Your task to perform on an android device: check battery use Image 0: 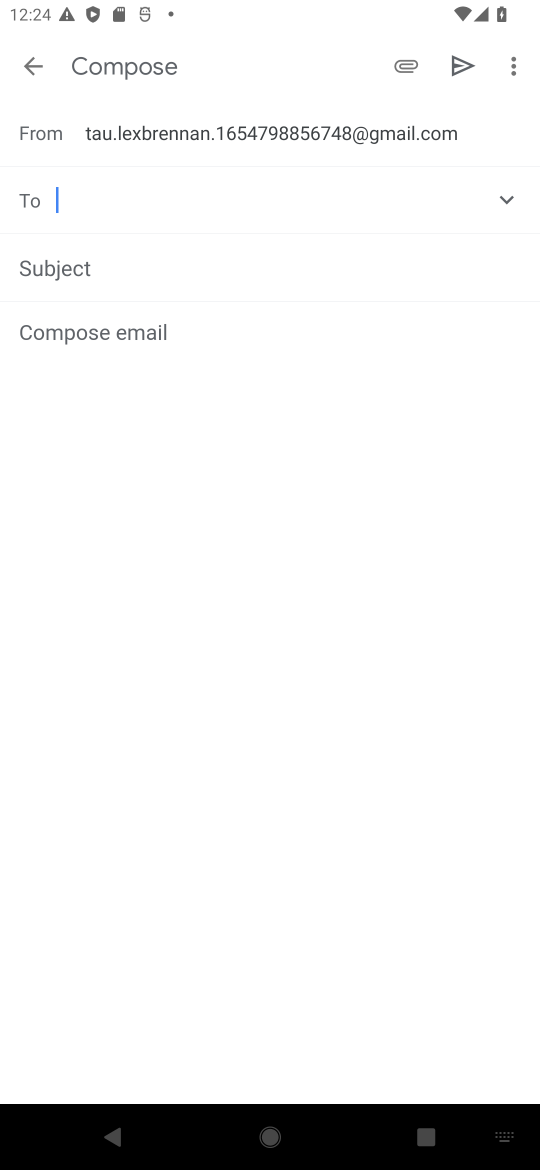
Step 0: press home button
Your task to perform on an android device: check battery use Image 1: 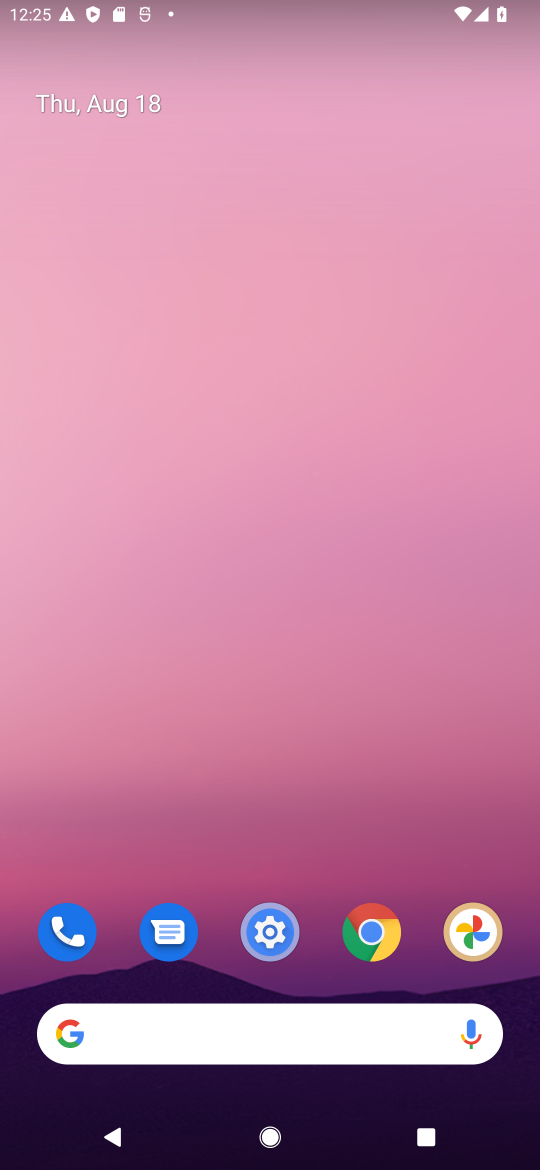
Step 1: click (268, 931)
Your task to perform on an android device: check battery use Image 2: 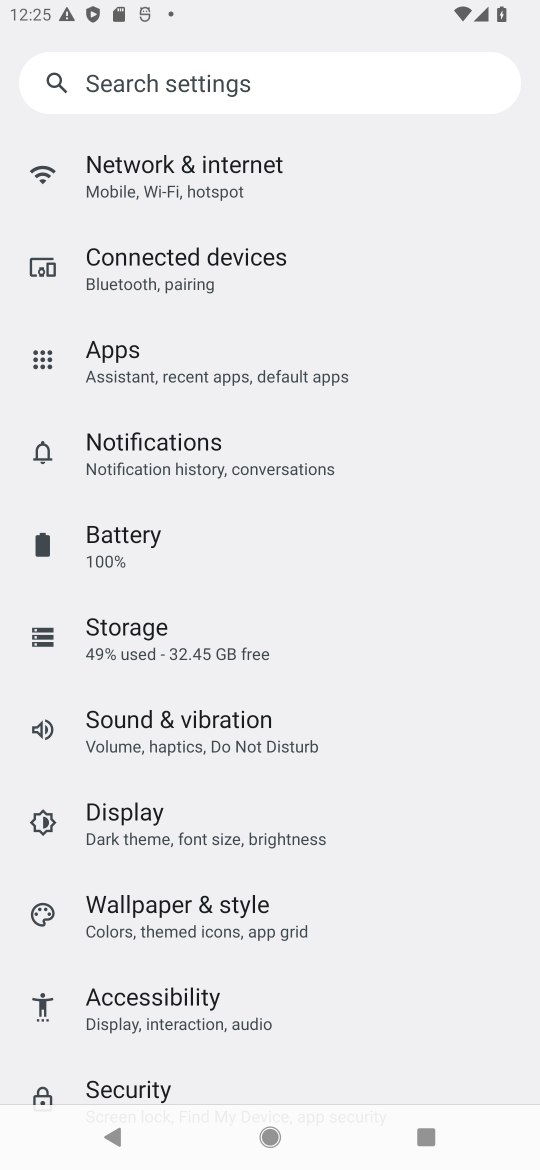
Step 2: click (135, 534)
Your task to perform on an android device: check battery use Image 3: 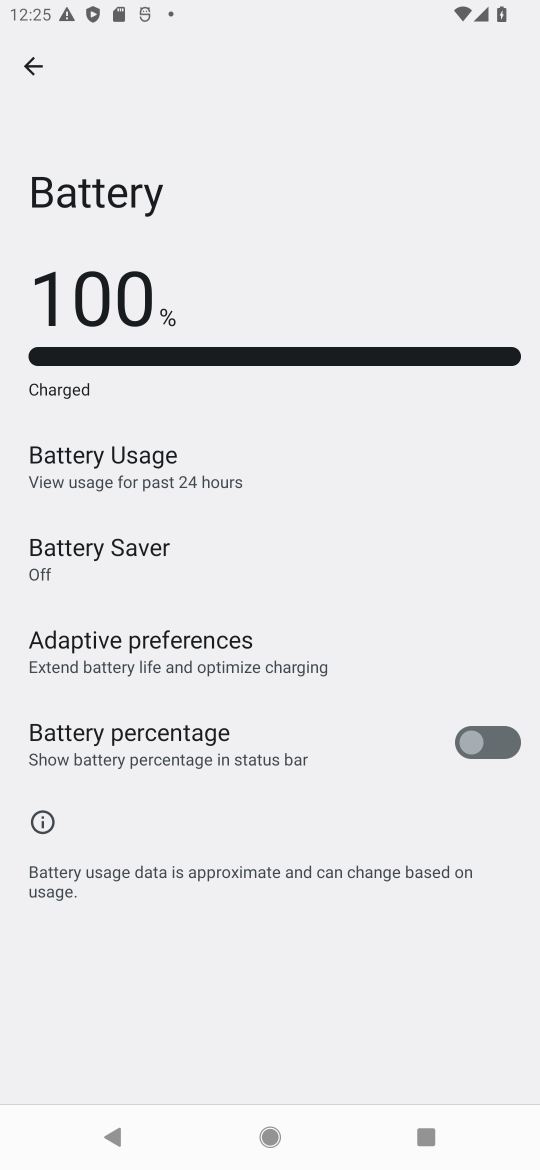
Step 3: task complete